Your task to perform on an android device: show emergency info Image 0: 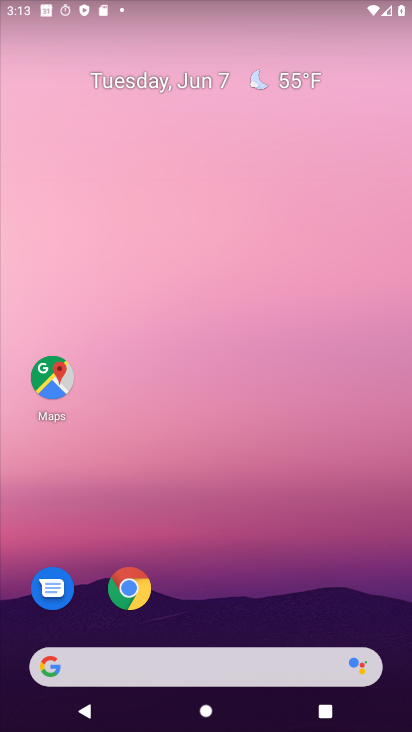
Step 0: press home button
Your task to perform on an android device: show emergency info Image 1: 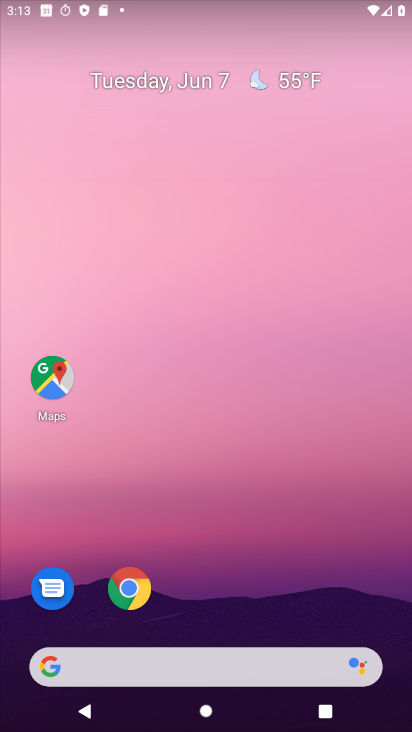
Step 1: drag from (207, 623) to (219, 124)
Your task to perform on an android device: show emergency info Image 2: 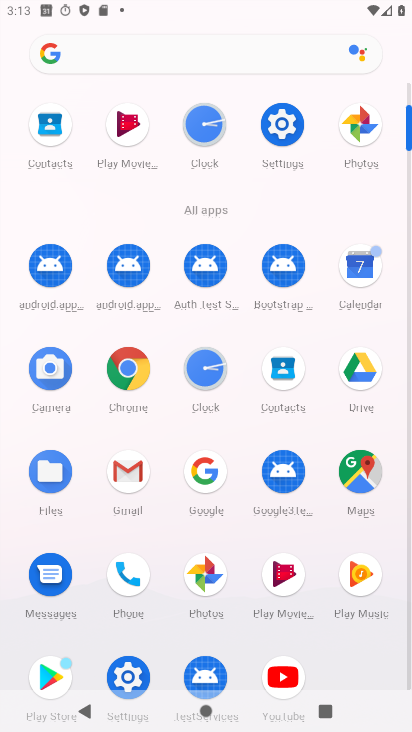
Step 2: click (284, 126)
Your task to perform on an android device: show emergency info Image 3: 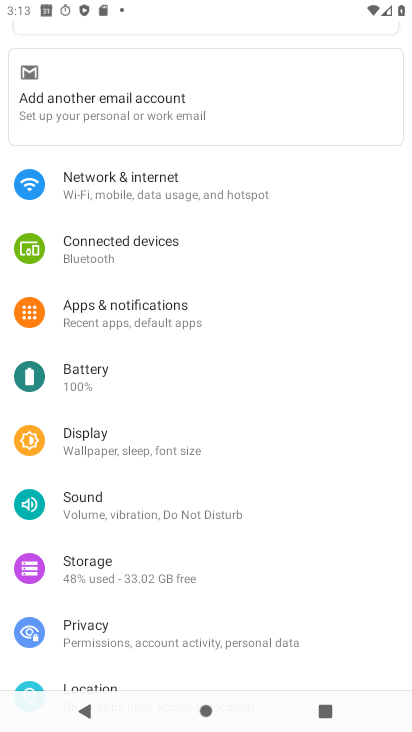
Step 3: drag from (230, 575) to (253, 13)
Your task to perform on an android device: show emergency info Image 4: 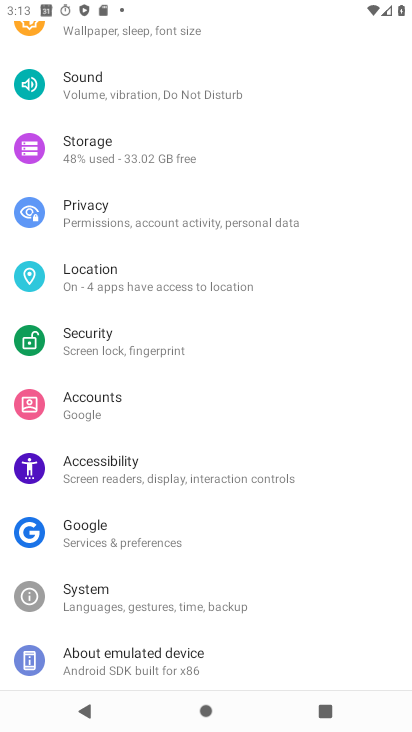
Step 4: drag from (387, 556) to (411, 4)
Your task to perform on an android device: show emergency info Image 5: 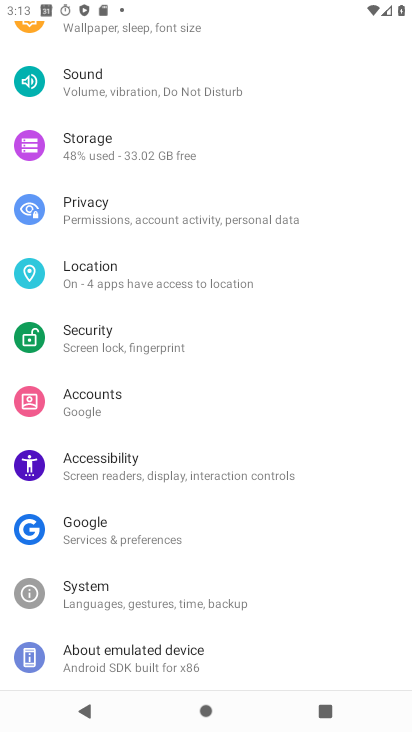
Step 5: click (130, 661)
Your task to perform on an android device: show emergency info Image 6: 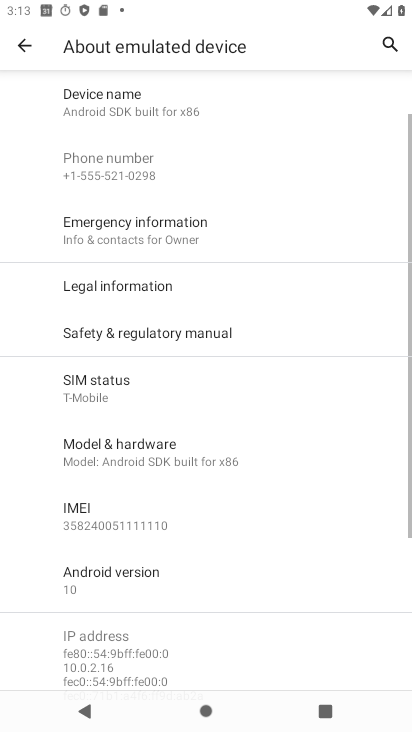
Step 6: click (126, 225)
Your task to perform on an android device: show emergency info Image 7: 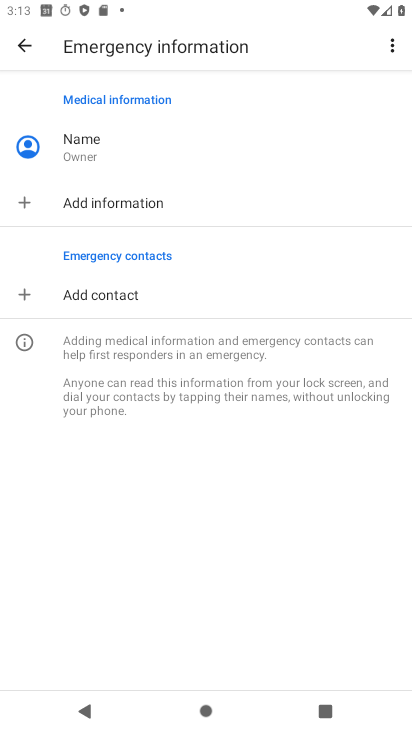
Step 7: task complete